Your task to perform on an android device: set the stopwatch Image 0: 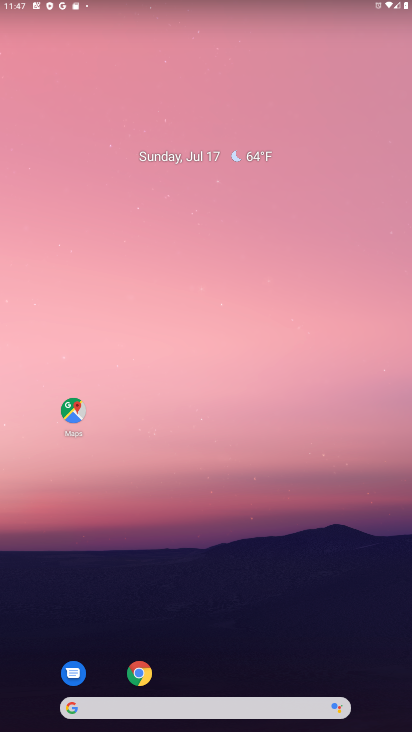
Step 0: drag from (229, 663) to (220, 25)
Your task to perform on an android device: set the stopwatch Image 1: 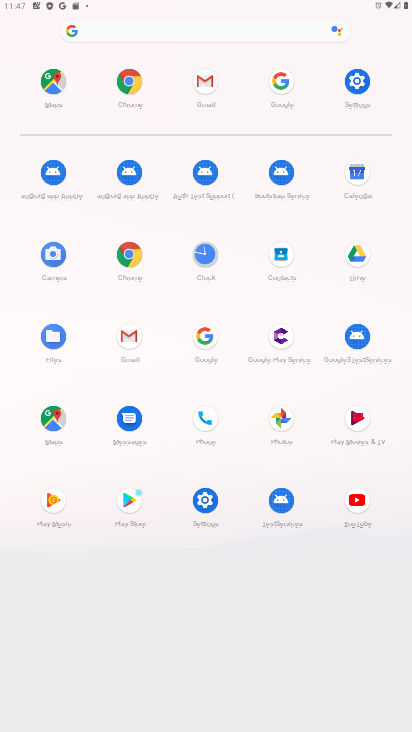
Step 1: click (206, 254)
Your task to perform on an android device: set the stopwatch Image 2: 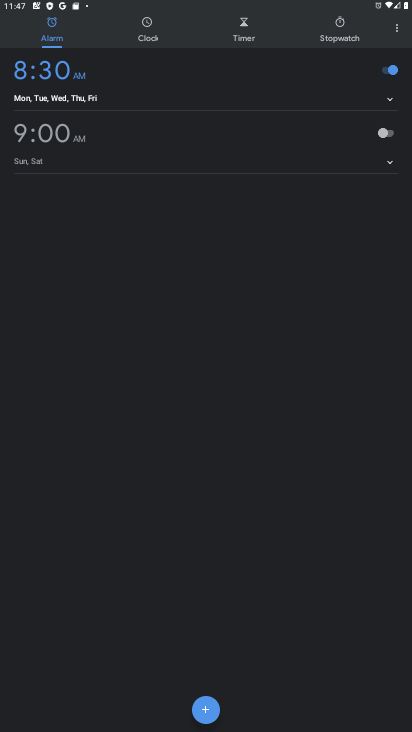
Step 2: click (320, 26)
Your task to perform on an android device: set the stopwatch Image 3: 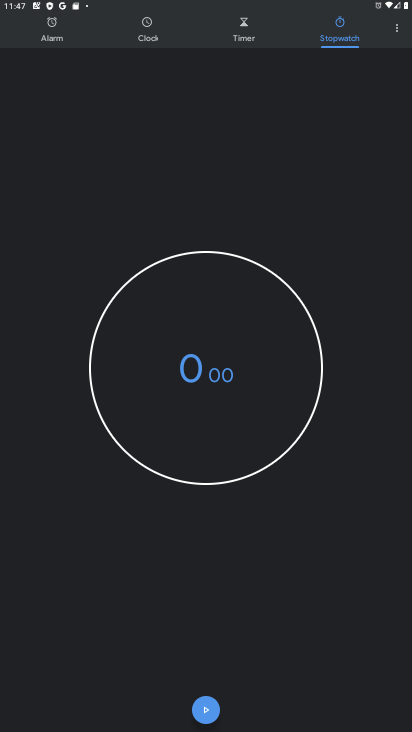
Step 3: click (209, 708)
Your task to perform on an android device: set the stopwatch Image 4: 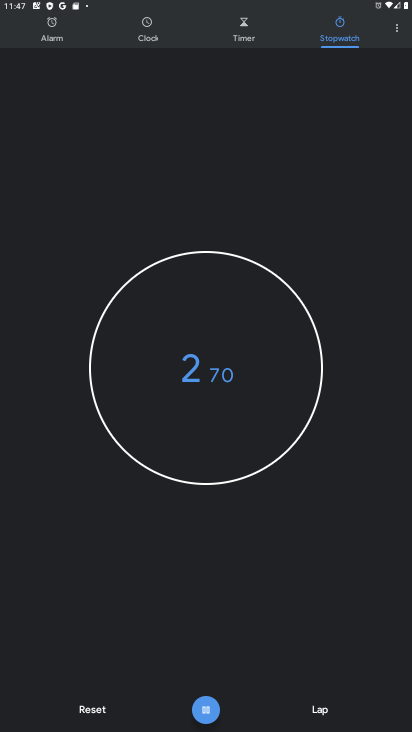
Step 4: task complete